Your task to perform on an android device: Add razer huntsman to the cart on ebay, then select checkout. Image 0: 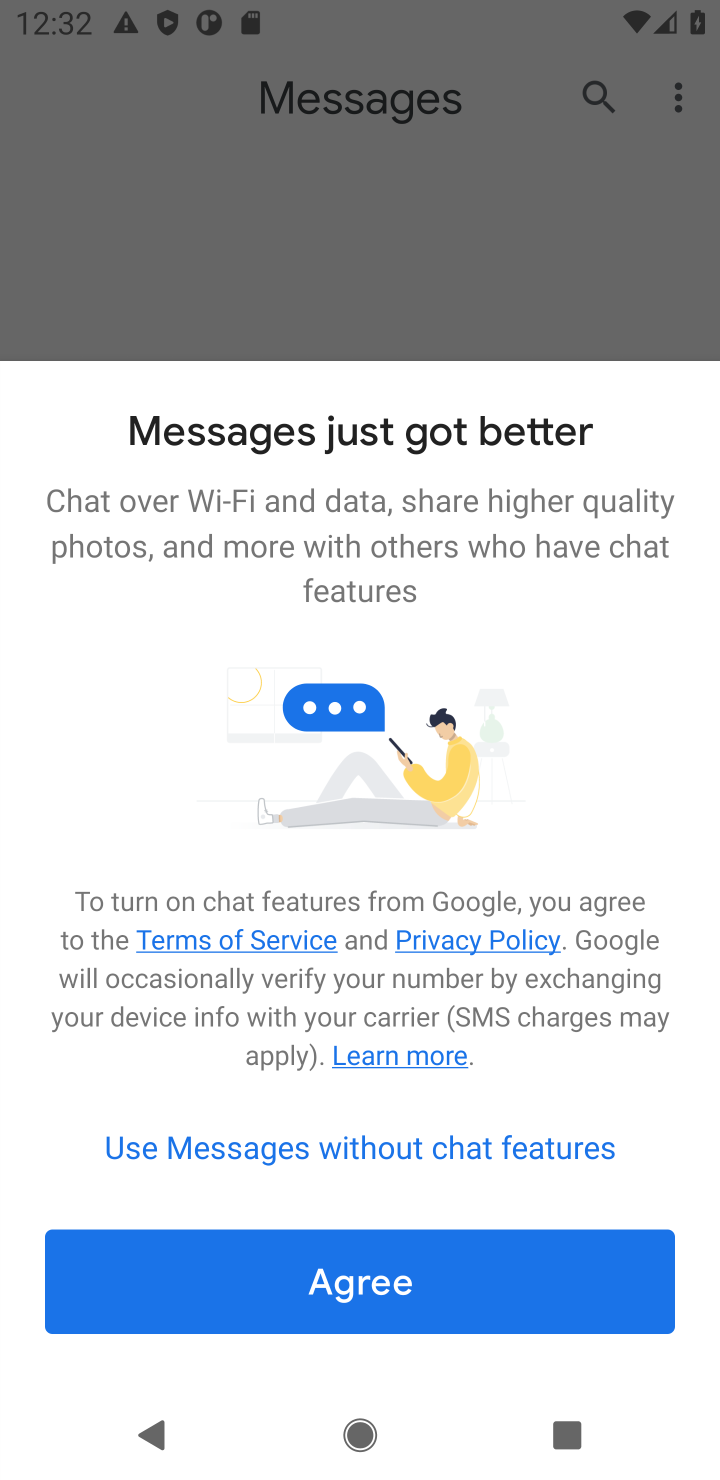
Step 0: press home button
Your task to perform on an android device: Add razer huntsman to the cart on ebay, then select checkout. Image 1: 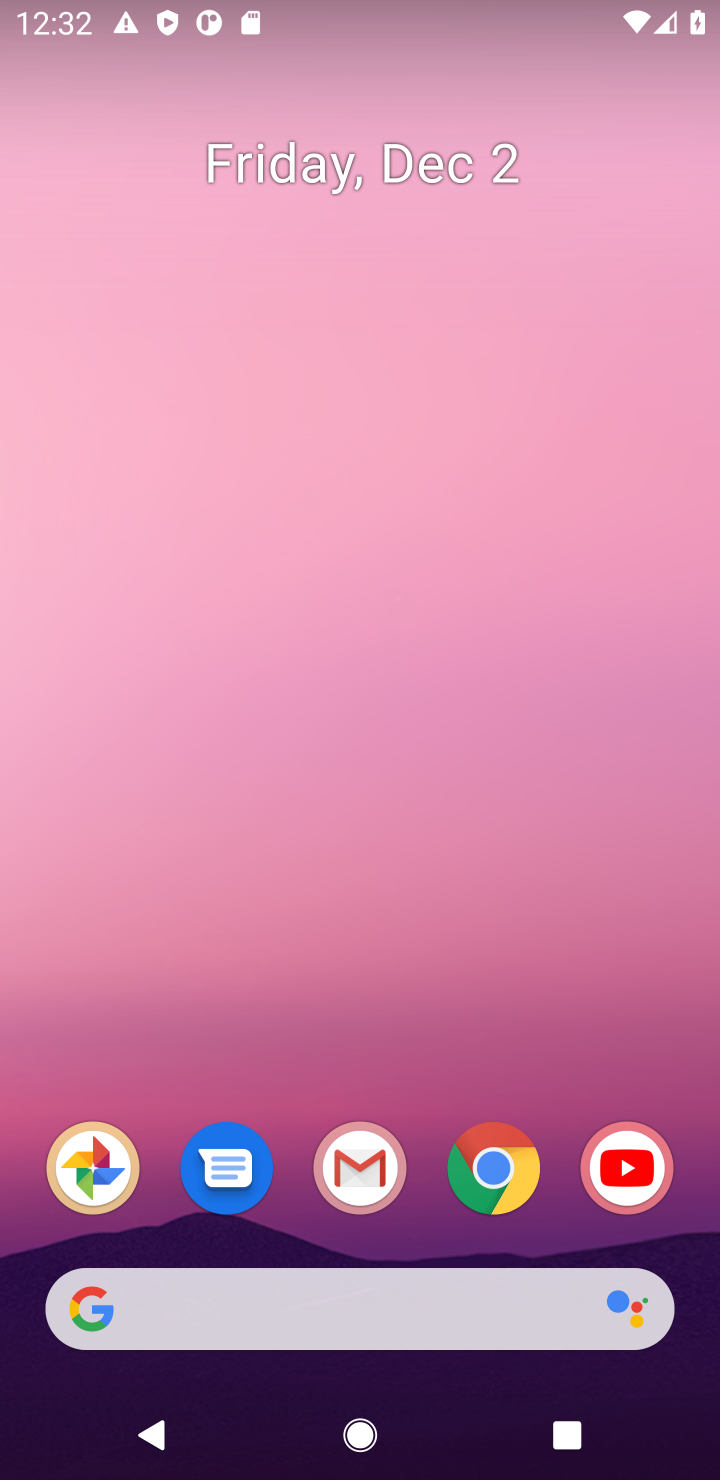
Step 1: click (501, 1173)
Your task to perform on an android device: Add razer huntsman to the cart on ebay, then select checkout. Image 2: 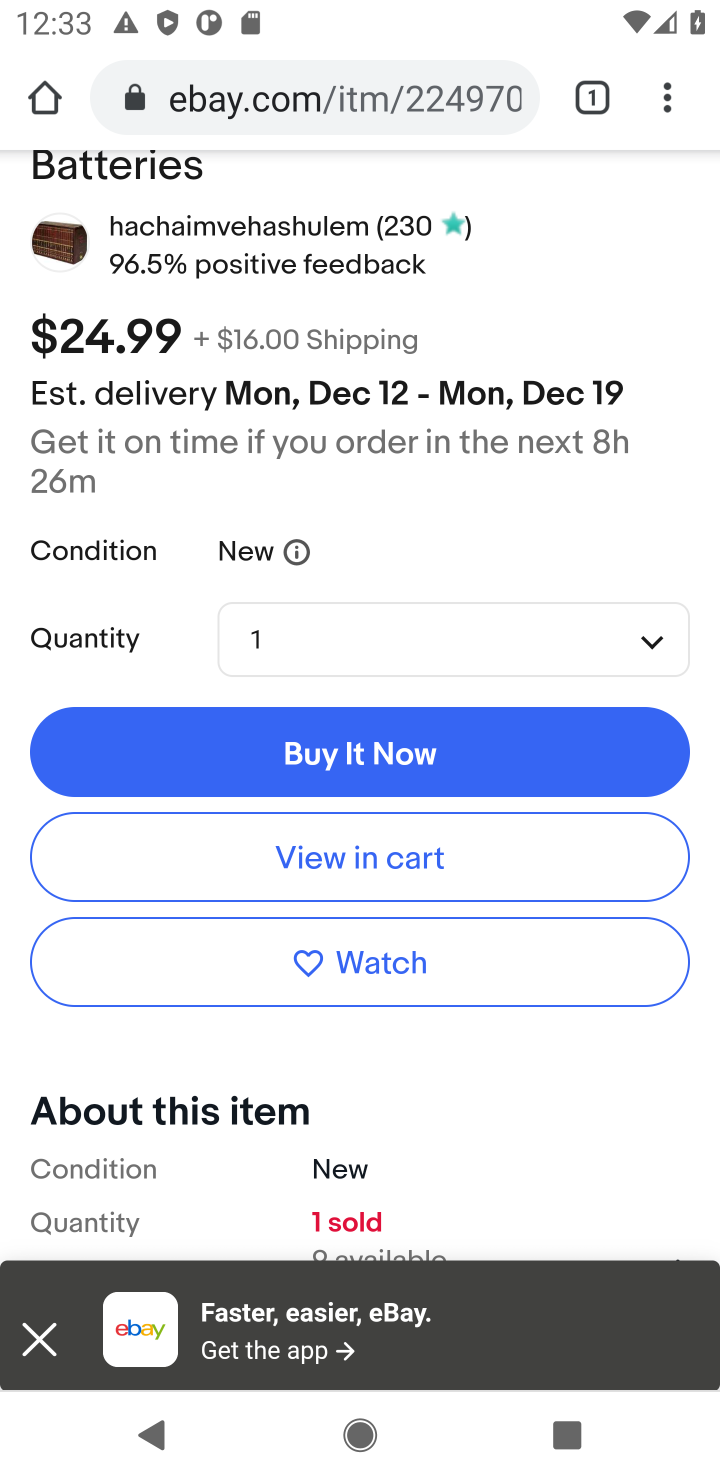
Step 2: drag from (397, 136) to (432, 1261)
Your task to perform on an android device: Add razer huntsman to the cart on ebay, then select checkout. Image 3: 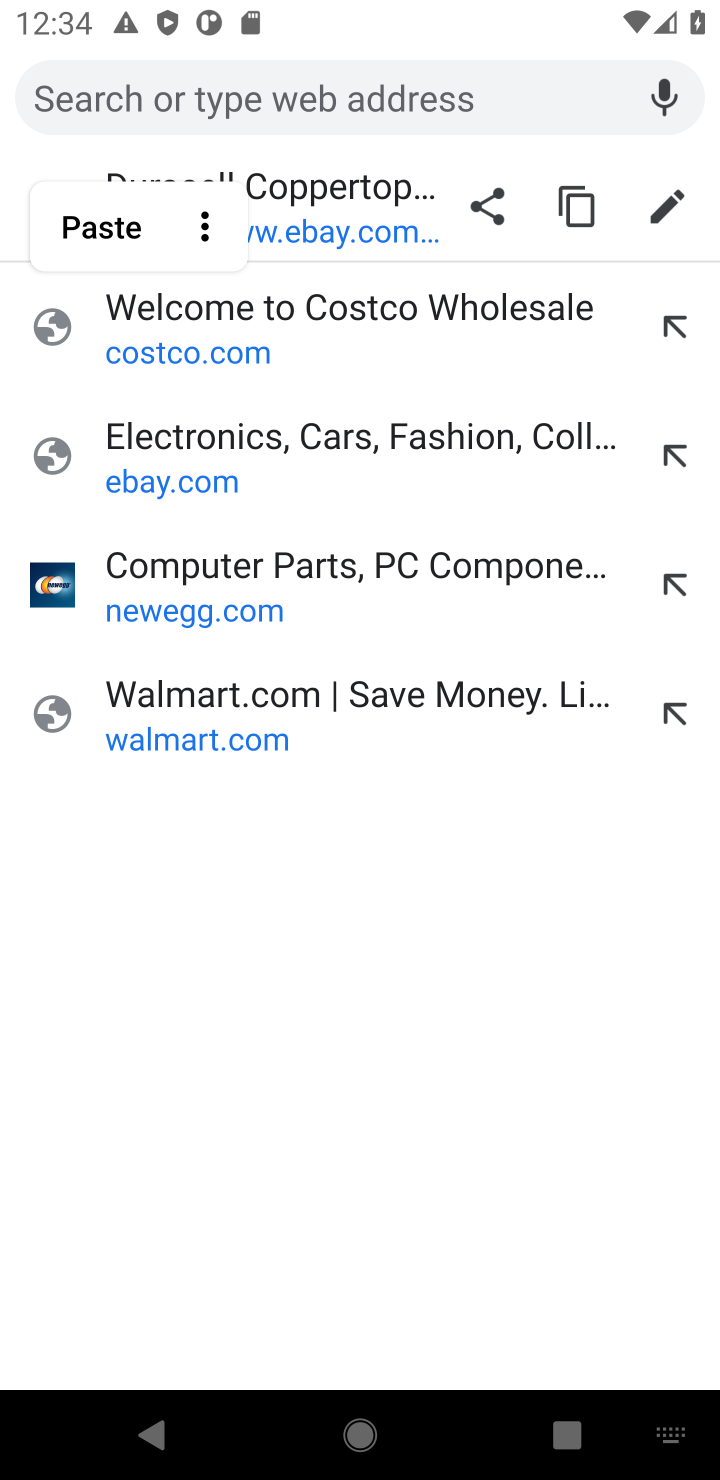
Step 3: type "ebay.com"
Your task to perform on an android device: Add razer huntsman to the cart on ebay, then select checkout. Image 4: 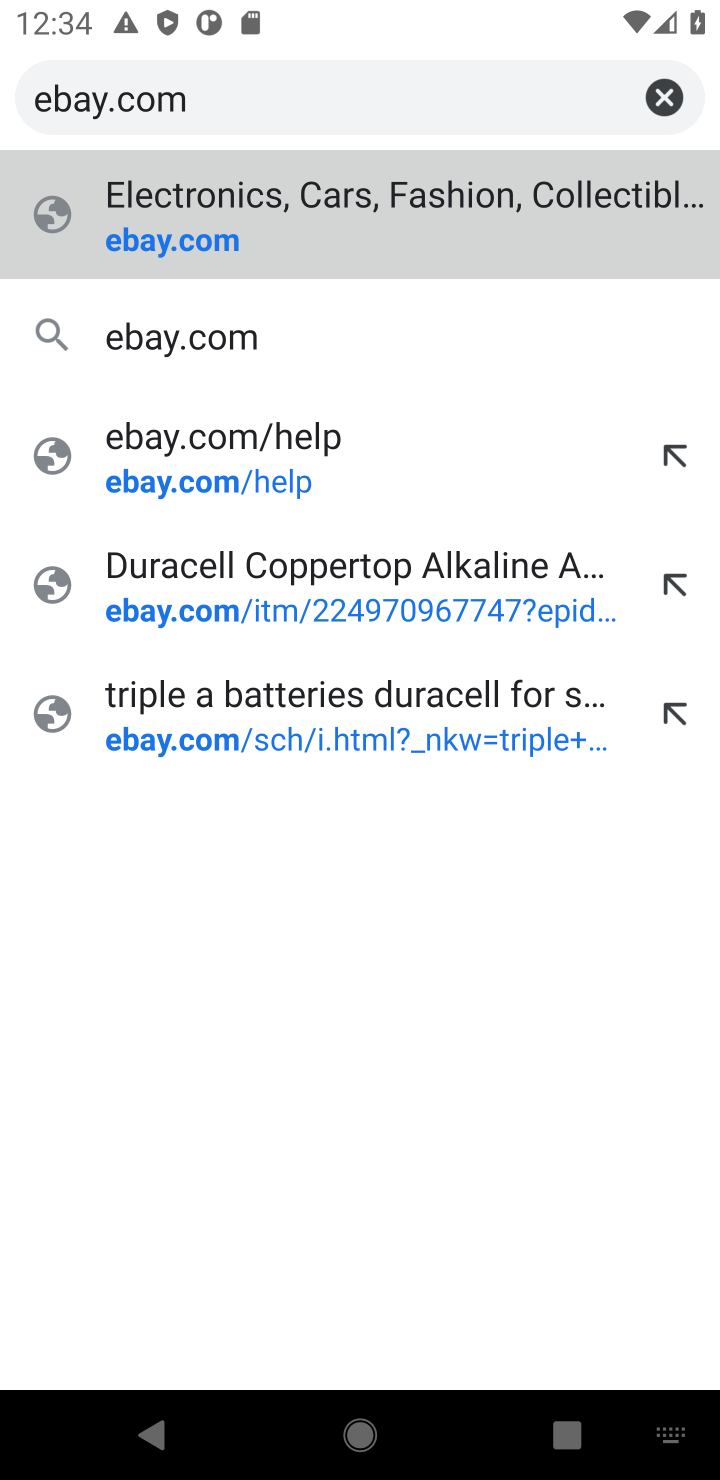
Step 4: click (507, 222)
Your task to perform on an android device: Add razer huntsman to the cart on ebay, then select checkout. Image 5: 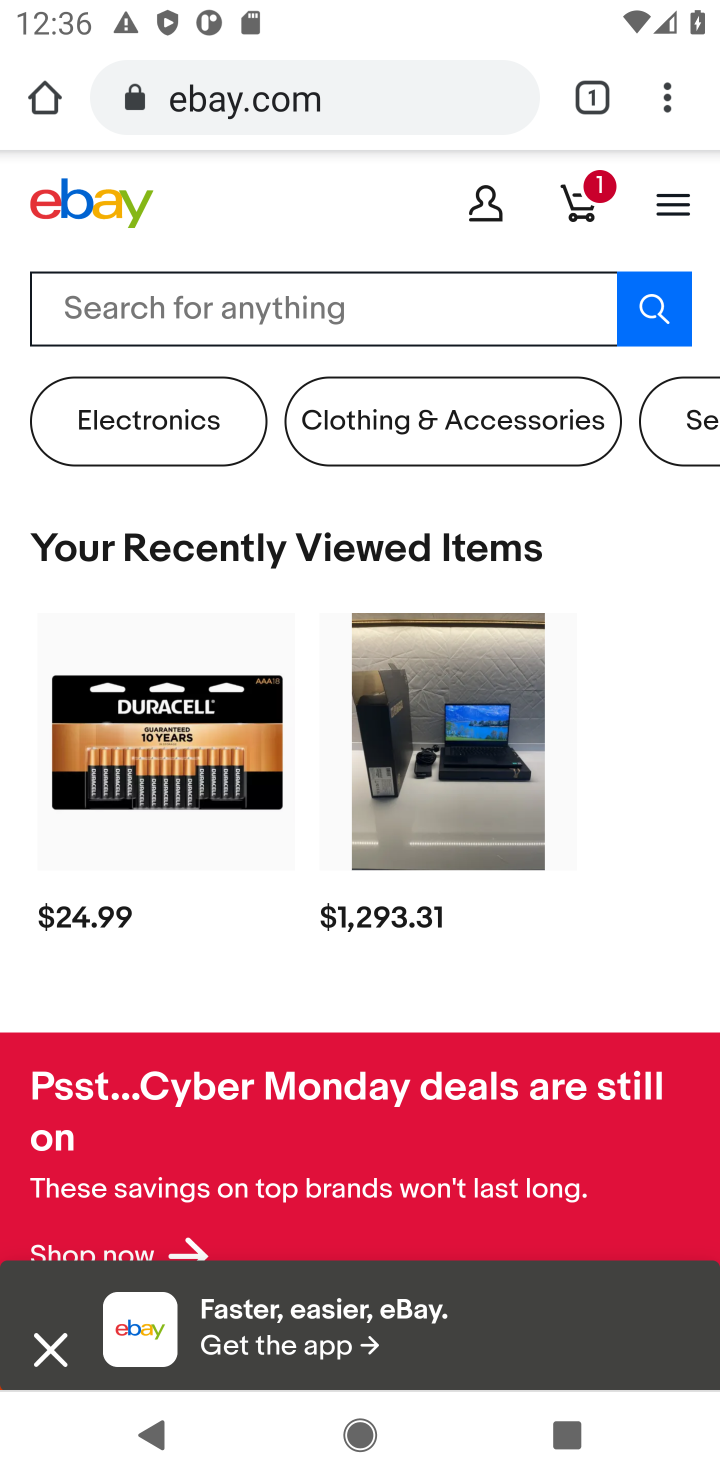
Step 5: task complete